Your task to perform on an android device: Check the news Image 0: 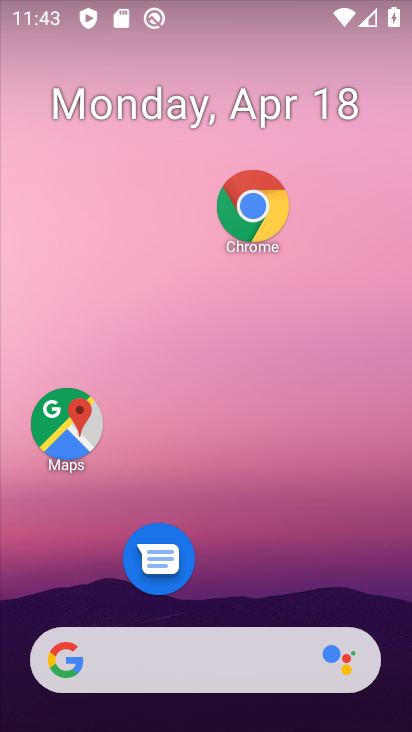
Step 0: drag from (163, 586) to (253, 56)
Your task to perform on an android device: Check the news Image 1: 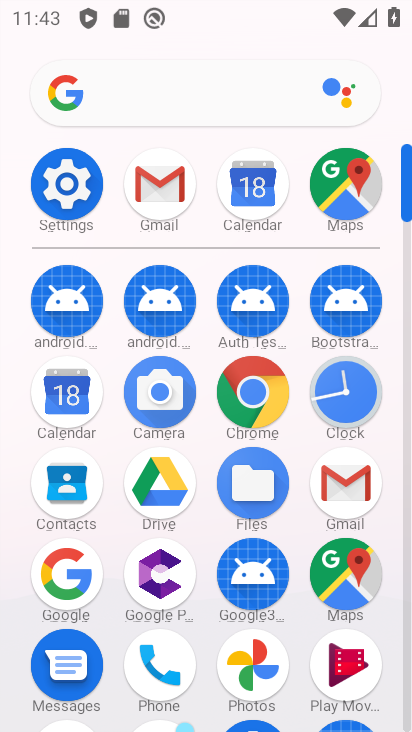
Step 1: click (261, 420)
Your task to perform on an android device: Check the news Image 2: 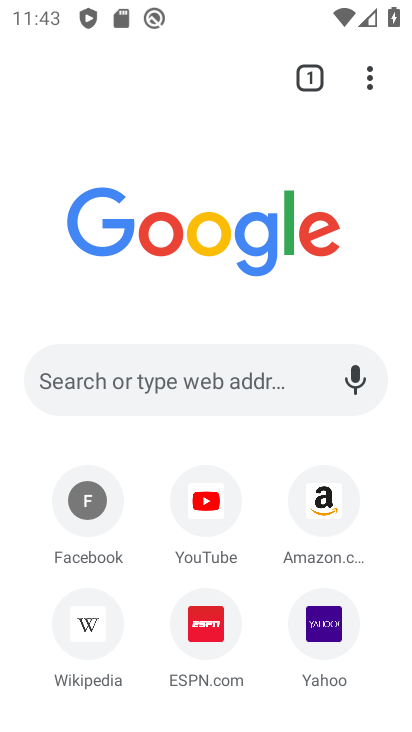
Step 2: click (204, 373)
Your task to perform on an android device: Check the news Image 3: 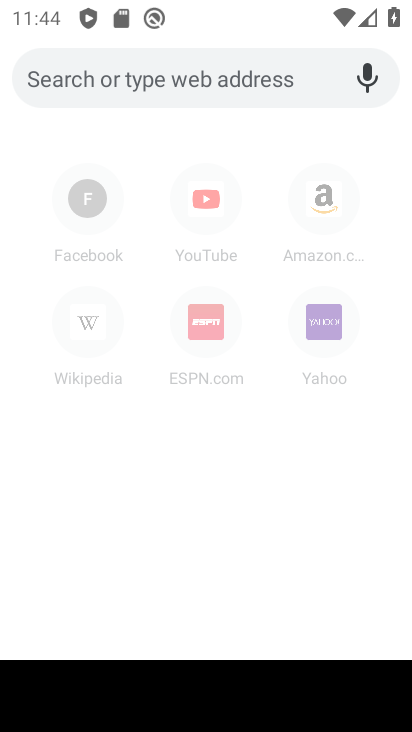
Step 3: type "today news"
Your task to perform on an android device: Check the news Image 4: 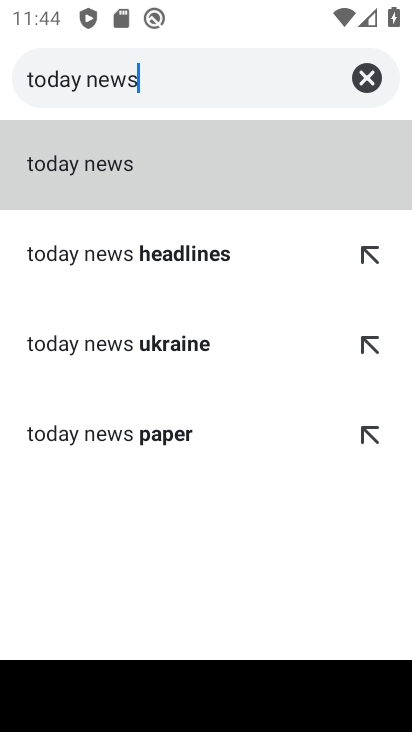
Step 4: click (174, 166)
Your task to perform on an android device: Check the news Image 5: 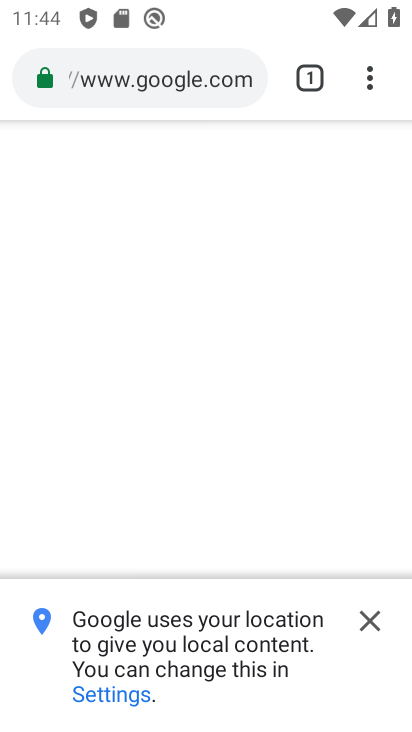
Step 5: click (365, 620)
Your task to perform on an android device: Check the news Image 6: 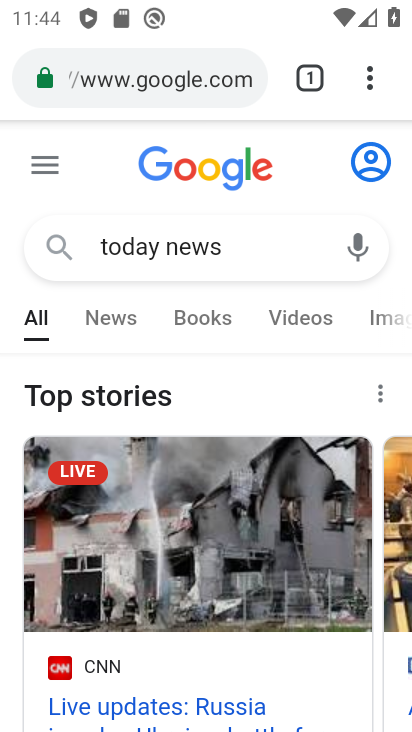
Step 6: task complete